Your task to perform on an android device: What's the weather going to be tomorrow? Image 0: 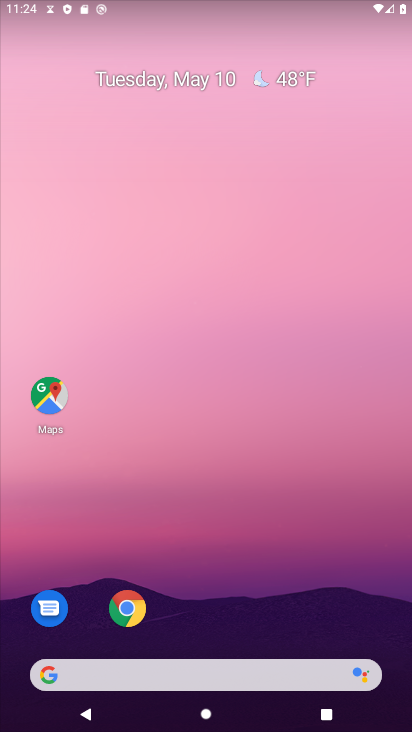
Step 0: click (135, 609)
Your task to perform on an android device: What's the weather going to be tomorrow? Image 1: 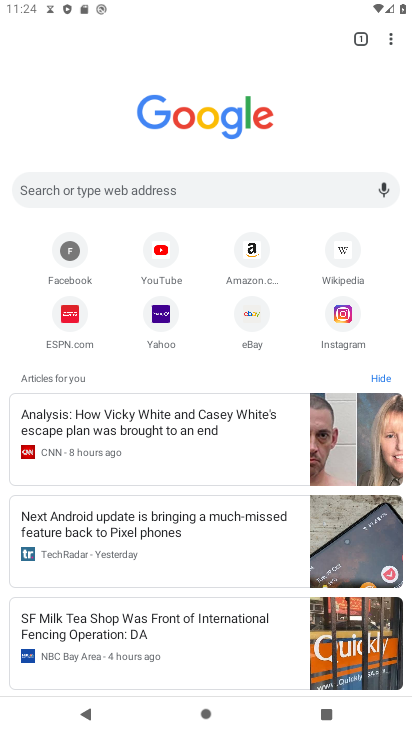
Step 1: click (158, 193)
Your task to perform on an android device: What's the weather going to be tomorrow? Image 2: 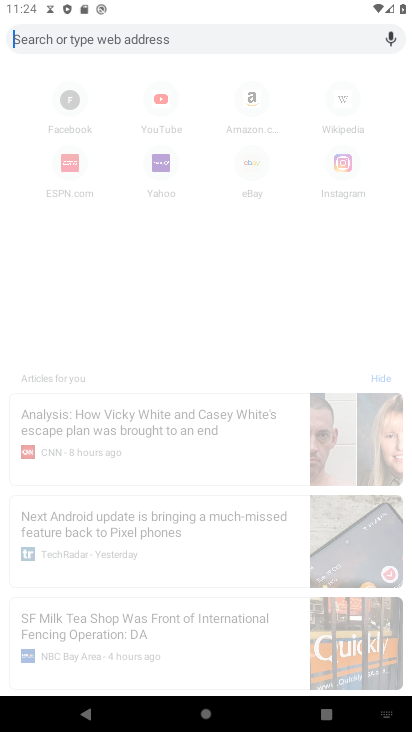
Step 2: type "whats the weather going to be tomorrow"
Your task to perform on an android device: What's the weather going to be tomorrow? Image 3: 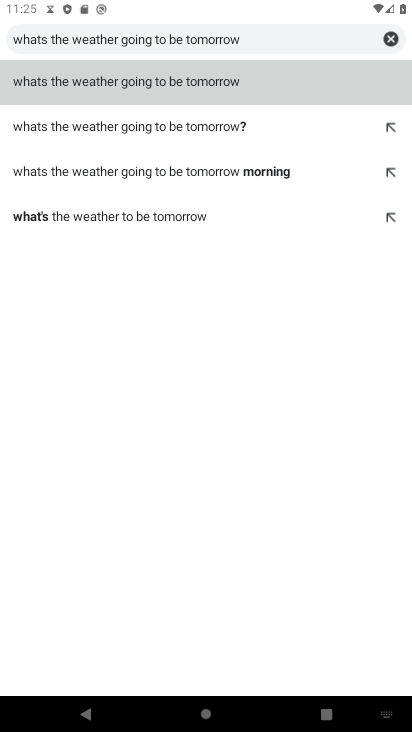
Step 3: click (259, 117)
Your task to perform on an android device: What's the weather going to be tomorrow? Image 4: 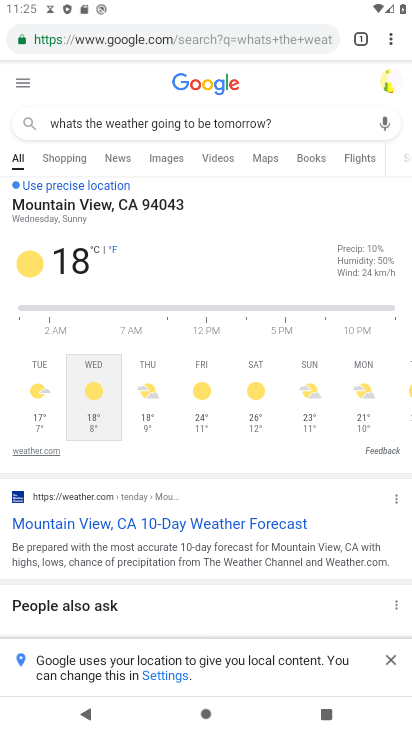
Step 4: task complete